Your task to perform on an android device: snooze an email in the gmail app Image 0: 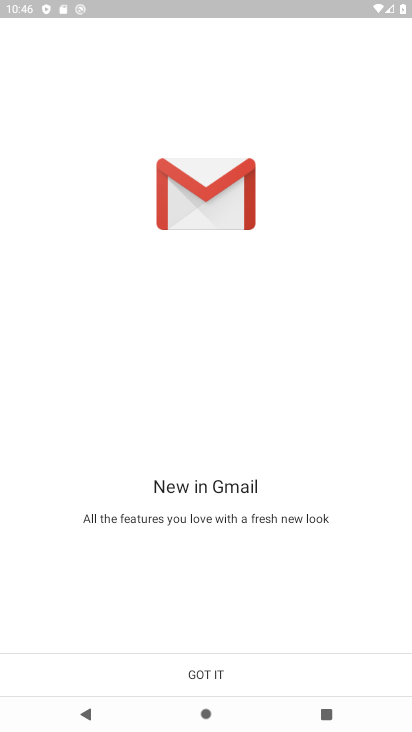
Step 0: click (218, 672)
Your task to perform on an android device: snooze an email in the gmail app Image 1: 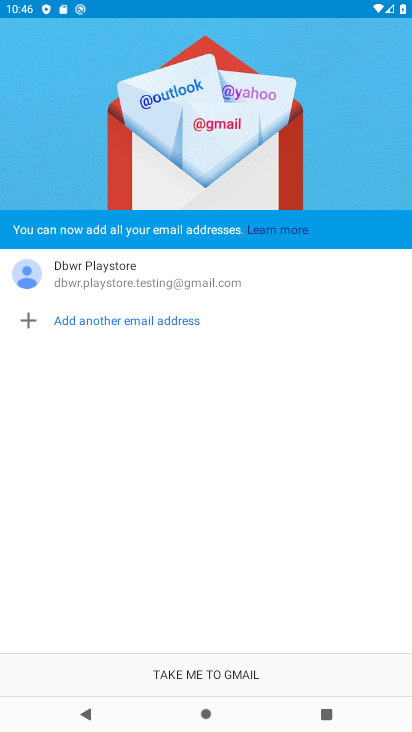
Step 1: click (218, 672)
Your task to perform on an android device: snooze an email in the gmail app Image 2: 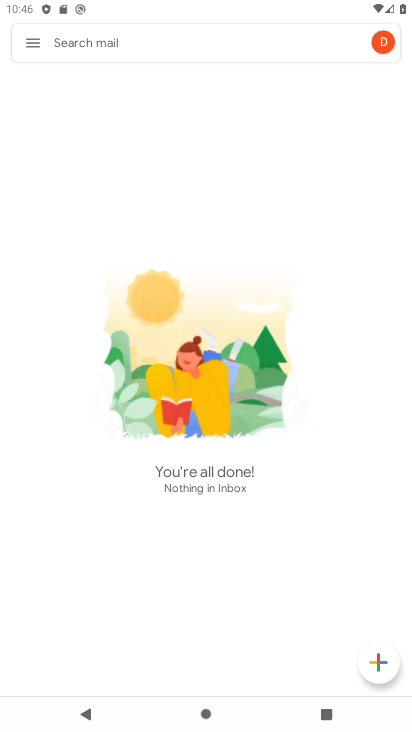
Step 2: task complete